Your task to perform on an android device: empty trash in google photos Image 0: 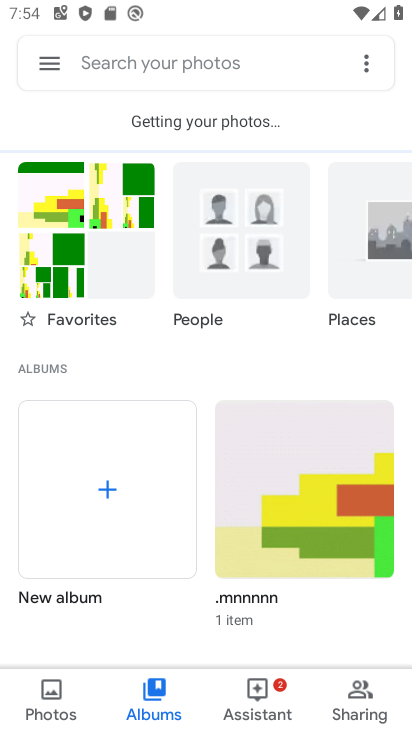
Step 0: click (348, 686)
Your task to perform on an android device: empty trash in google photos Image 1: 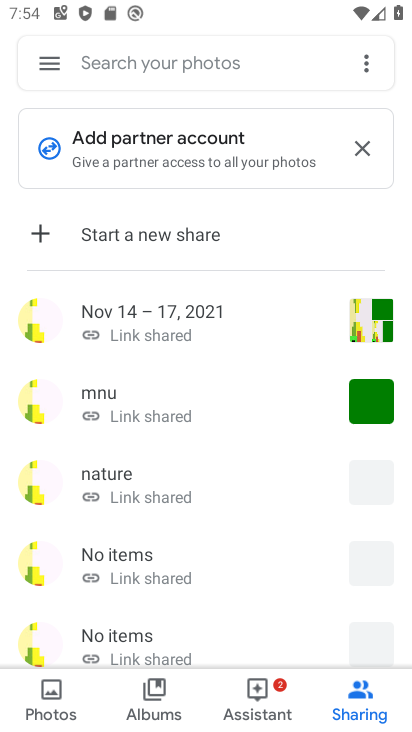
Step 1: click (48, 52)
Your task to perform on an android device: empty trash in google photos Image 2: 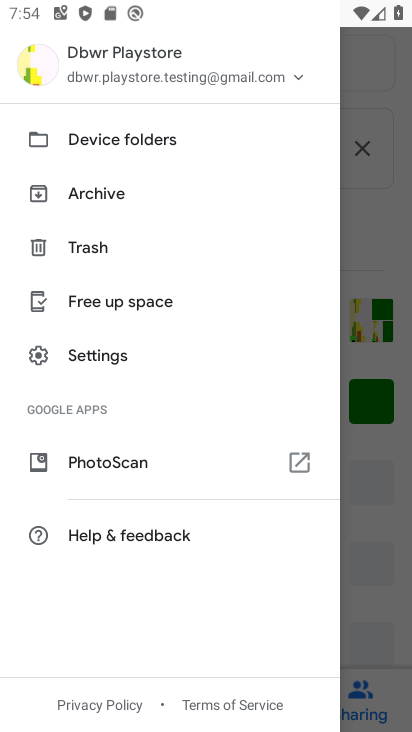
Step 2: click (152, 246)
Your task to perform on an android device: empty trash in google photos Image 3: 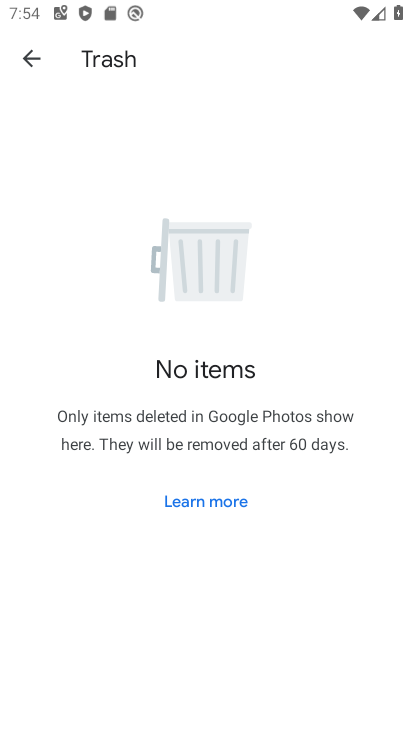
Step 3: task complete